Your task to perform on an android device: set an alarm Image 0: 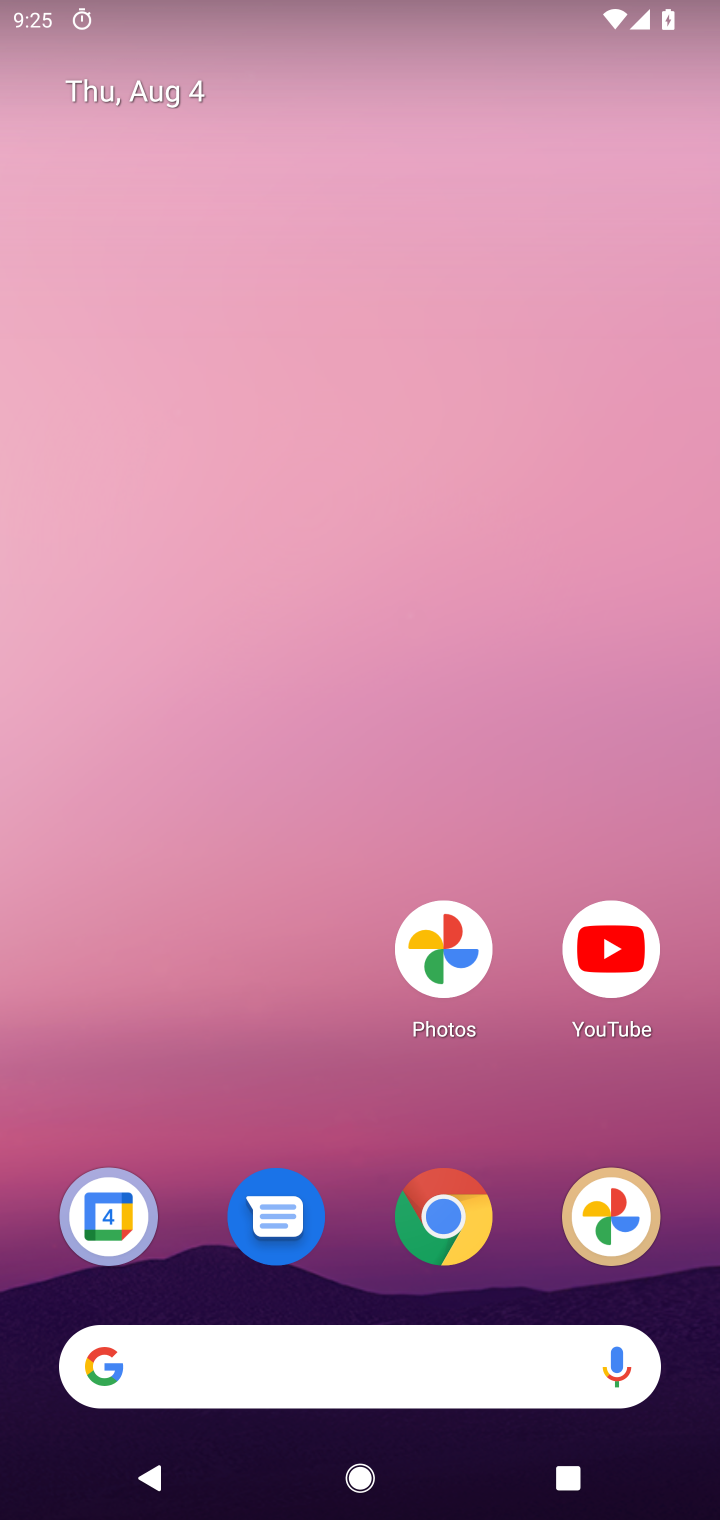
Step 0: drag from (358, 1232) to (292, 250)
Your task to perform on an android device: set an alarm Image 1: 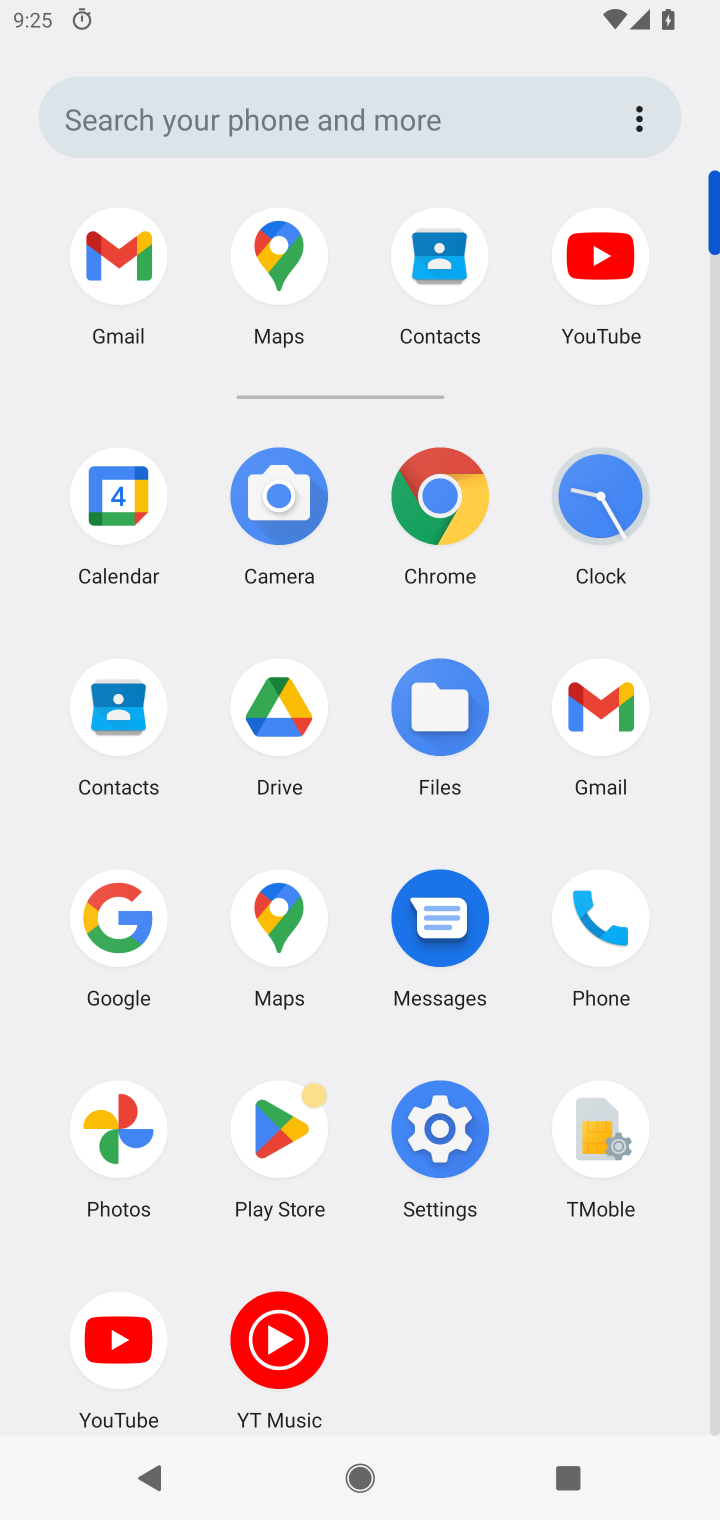
Step 1: click (604, 496)
Your task to perform on an android device: set an alarm Image 2: 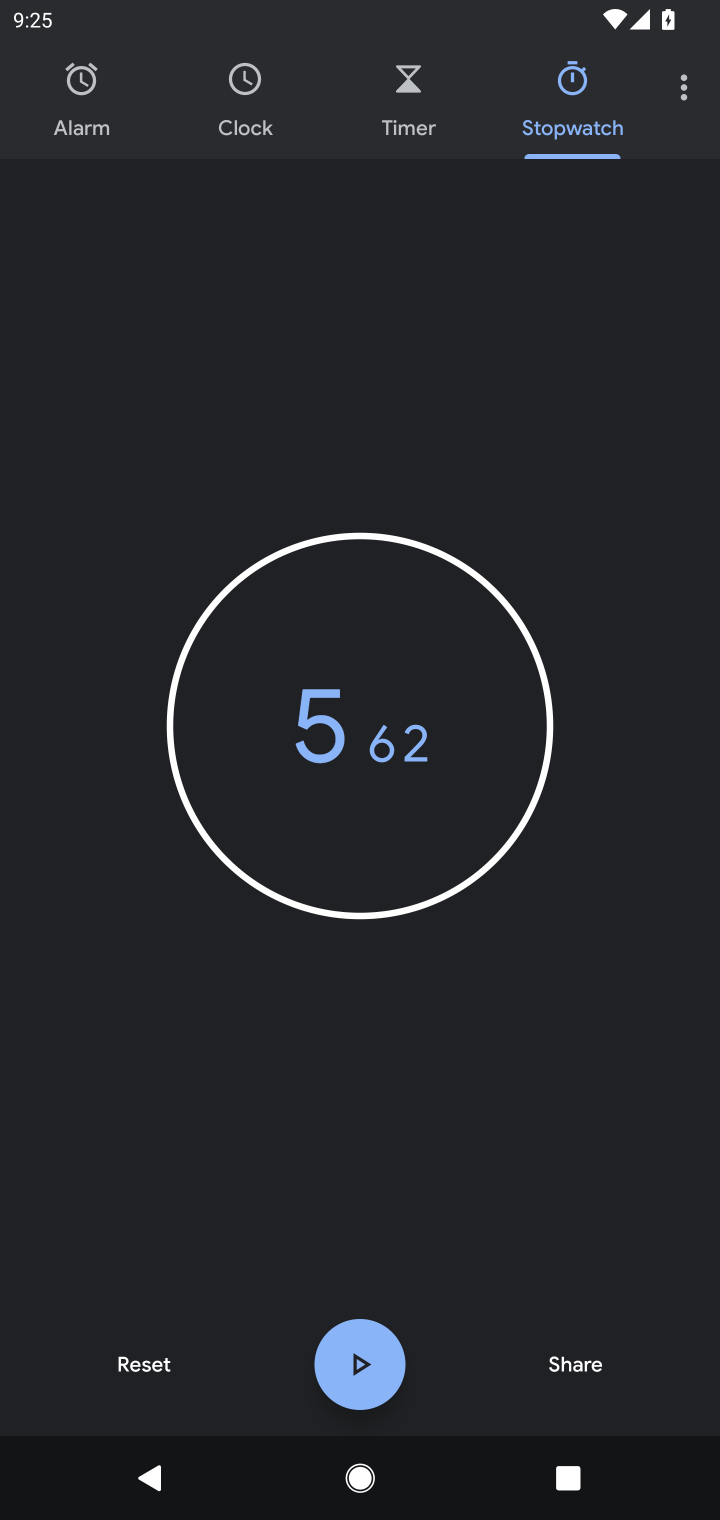
Step 2: click (89, 99)
Your task to perform on an android device: set an alarm Image 3: 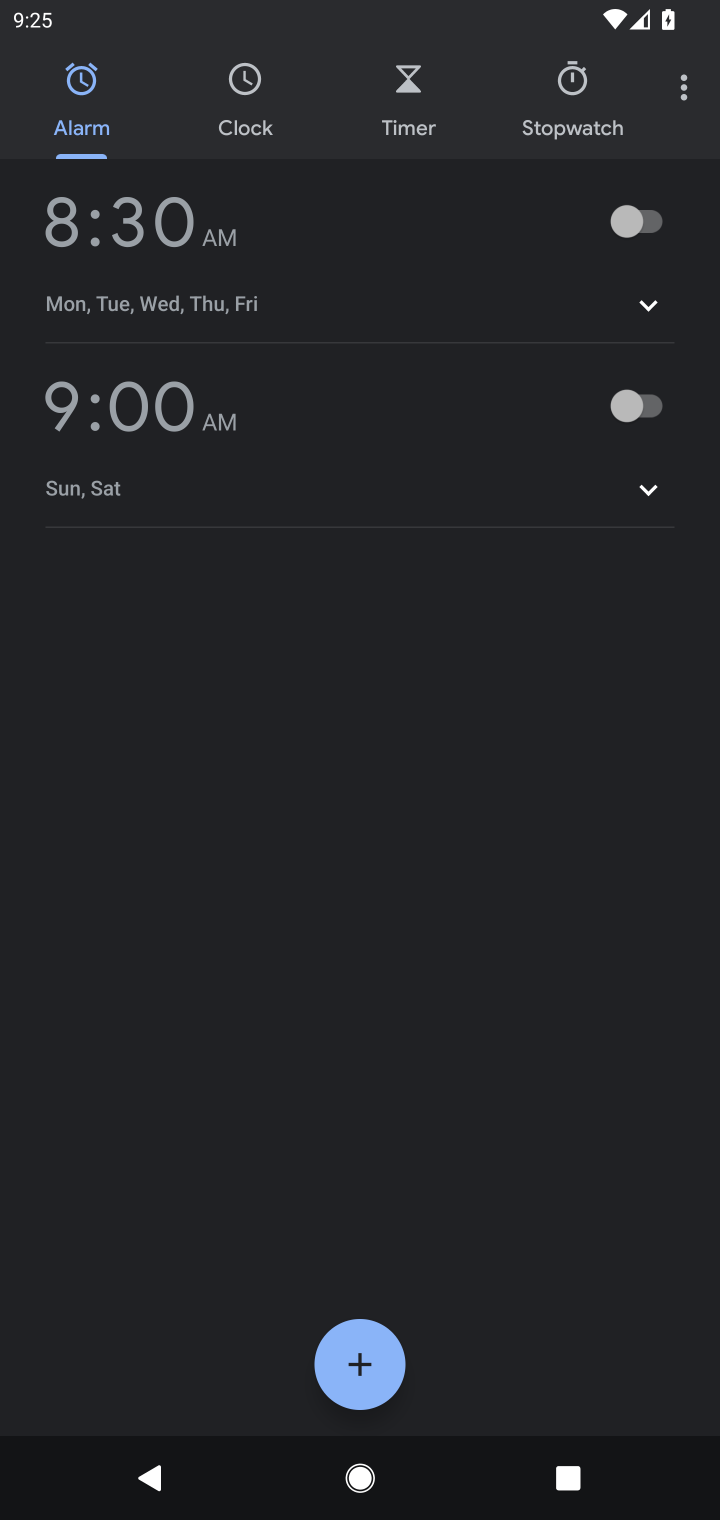
Step 3: click (351, 1379)
Your task to perform on an android device: set an alarm Image 4: 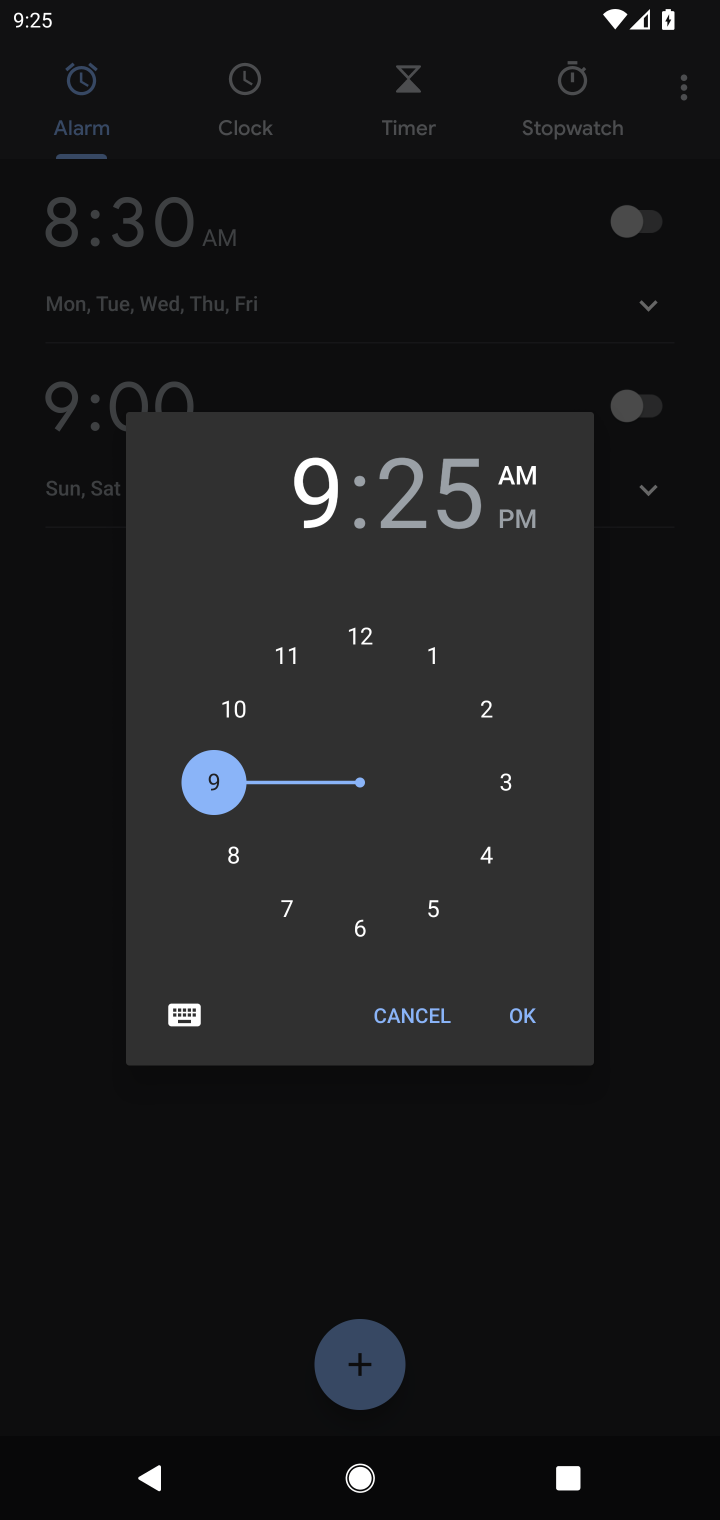
Step 4: click (333, 916)
Your task to perform on an android device: set an alarm Image 5: 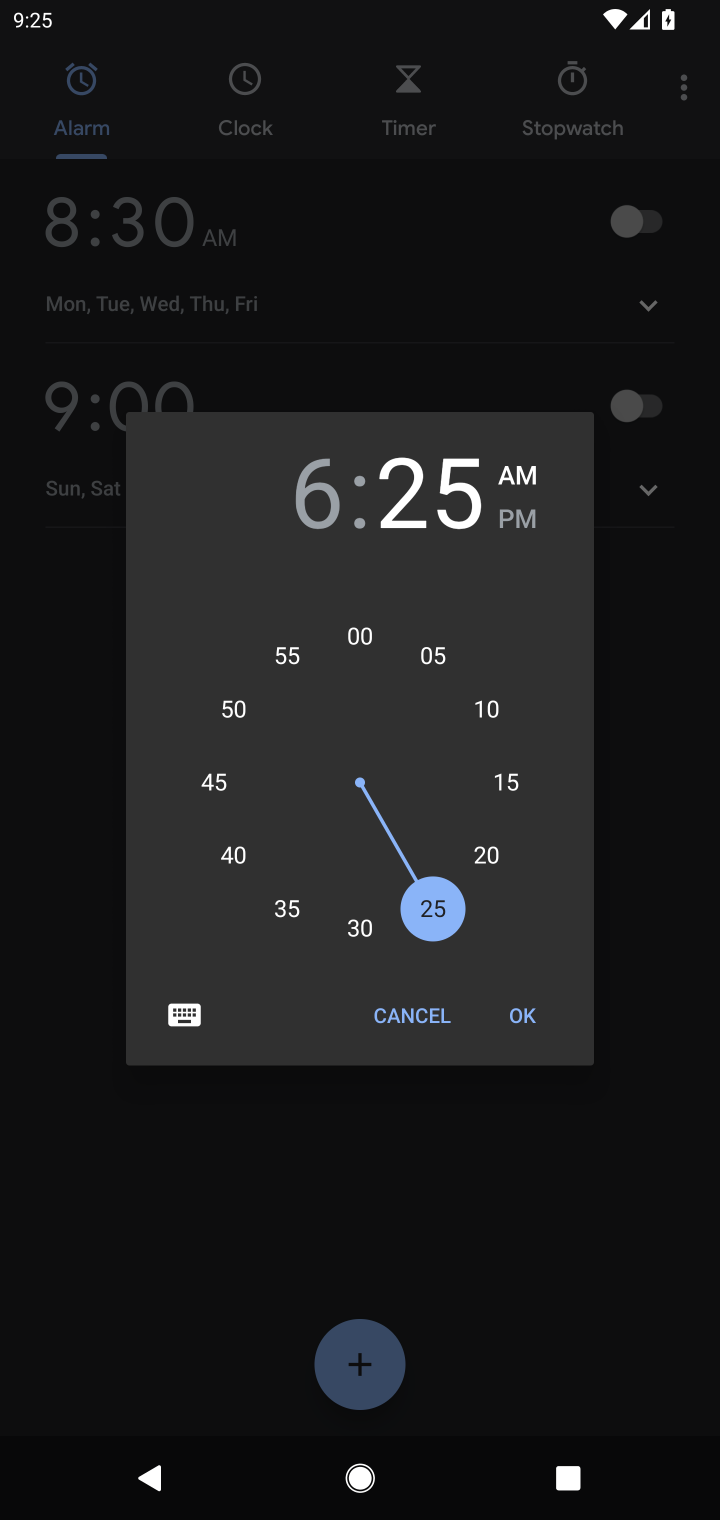
Step 5: click (527, 1015)
Your task to perform on an android device: set an alarm Image 6: 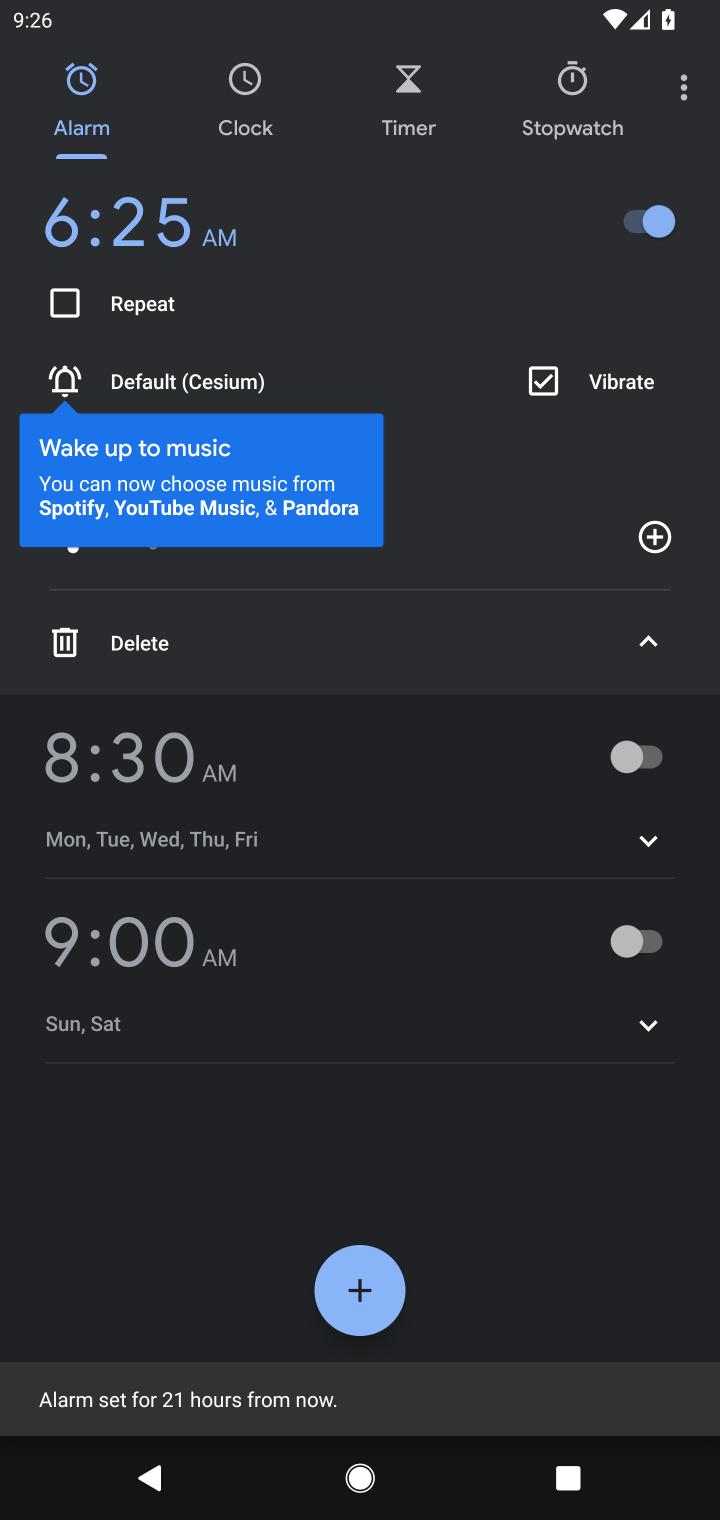
Step 6: task complete